Your task to perform on an android device: allow notifications from all sites in the chrome app Image 0: 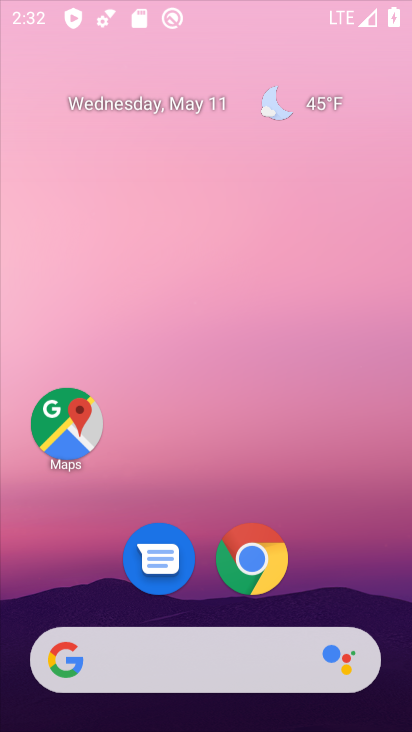
Step 0: drag from (304, 356) to (235, 94)
Your task to perform on an android device: allow notifications from all sites in the chrome app Image 1: 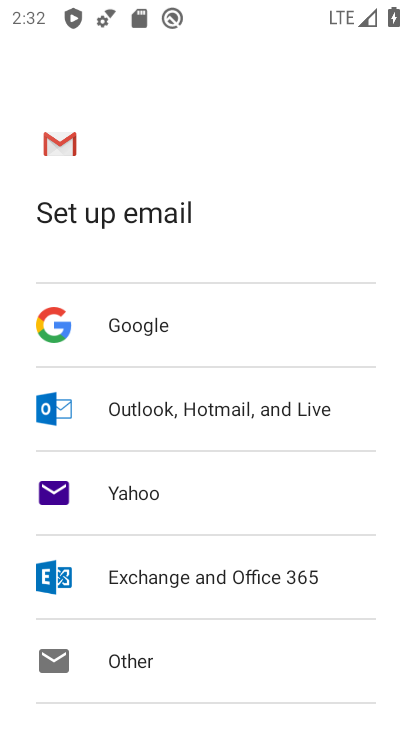
Step 1: press home button
Your task to perform on an android device: allow notifications from all sites in the chrome app Image 2: 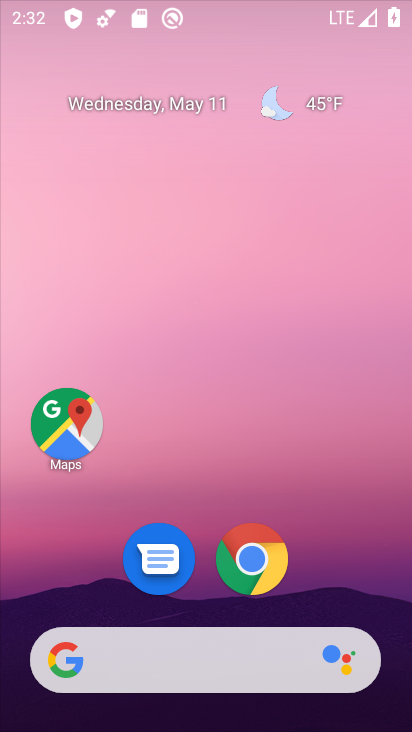
Step 2: drag from (324, 423) to (261, 58)
Your task to perform on an android device: allow notifications from all sites in the chrome app Image 3: 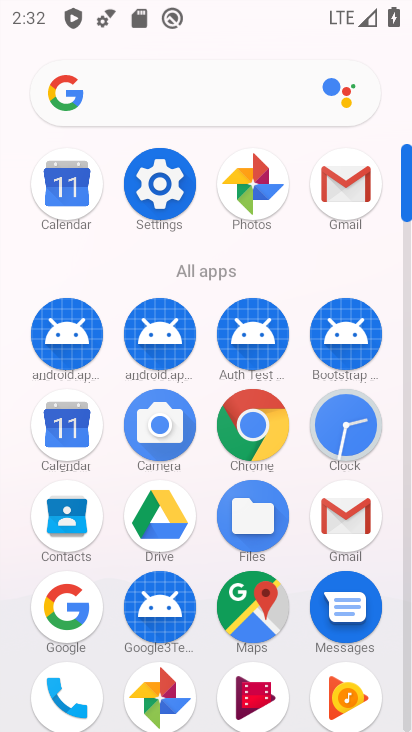
Step 3: click (342, 190)
Your task to perform on an android device: allow notifications from all sites in the chrome app Image 4: 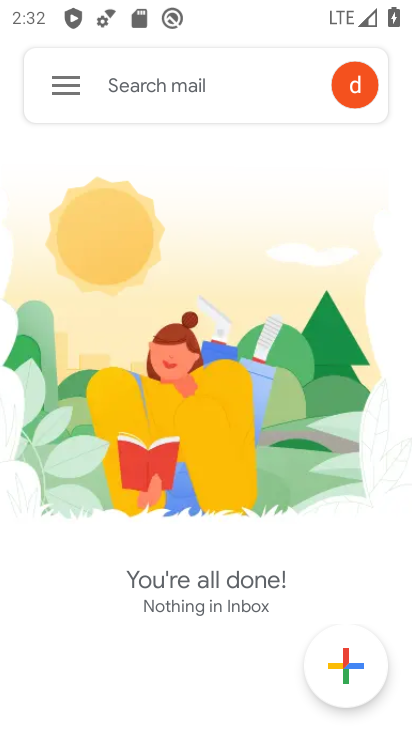
Step 4: click (69, 84)
Your task to perform on an android device: allow notifications from all sites in the chrome app Image 5: 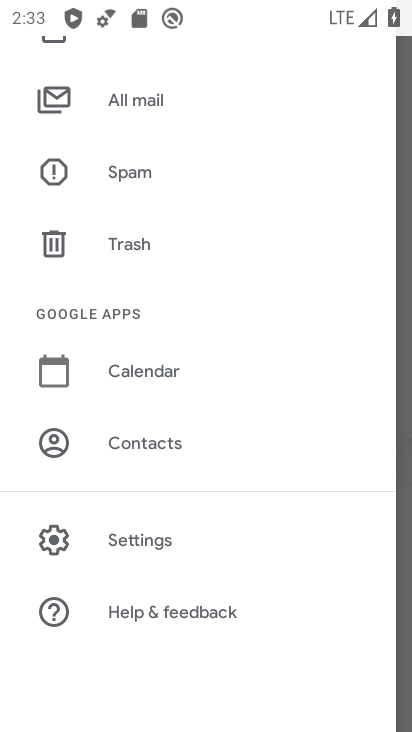
Step 5: press home button
Your task to perform on an android device: allow notifications from all sites in the chrome app Image 6: 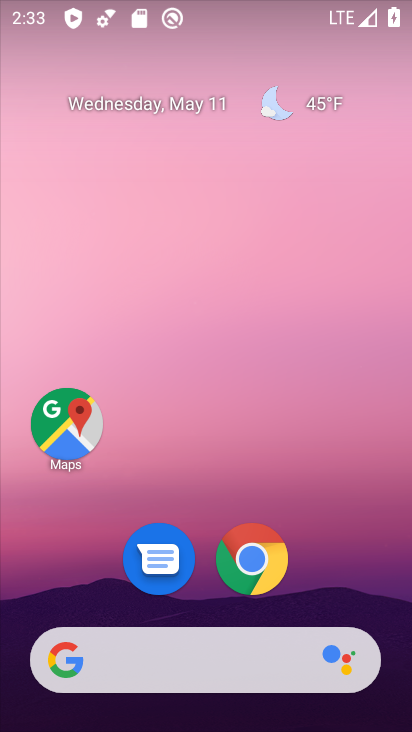
Step 6: click (259, 554)
Your task to perform on an android device: allow notifications from all sites in the chrome app Image 7: 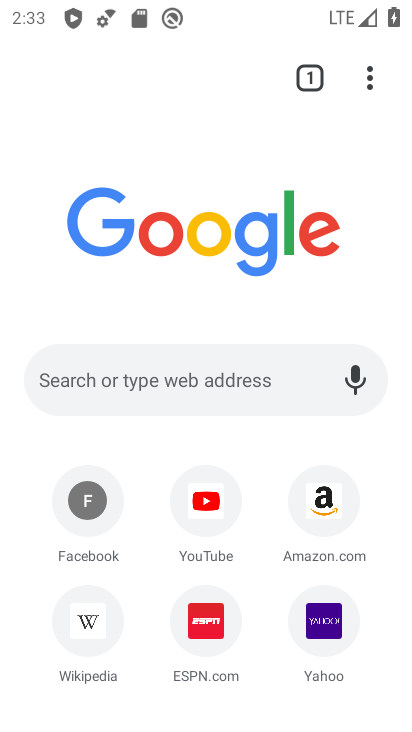
Step 7: click (376, 69)
Your task to perform on an android device: allow notifications from all sites in the chrome app Image 8: 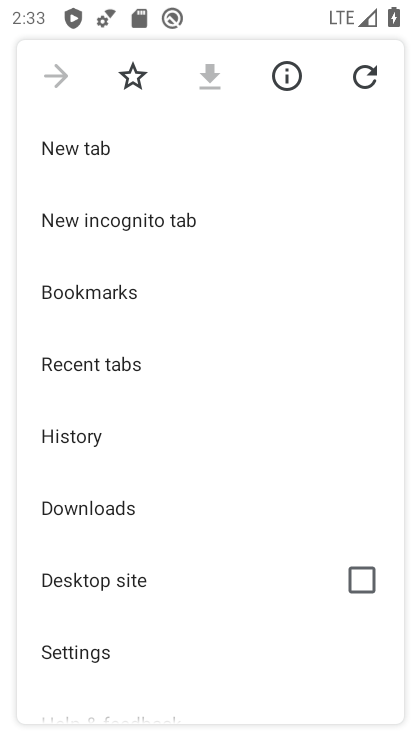
Step 8: drag from (168, 598) to (162, 517)
Your task to perform on an android device: allow notifications from all sites in the chrome app Image 9: 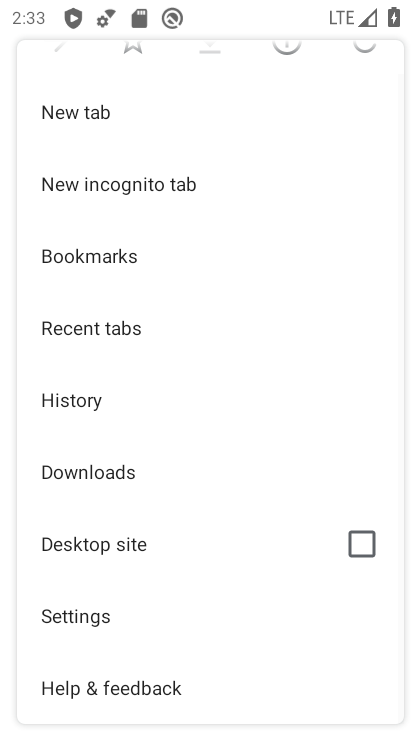
Step 9: click (150, 616)
Your task to perform on an android device: allow notifications from all sites in the chrome app Image 10: 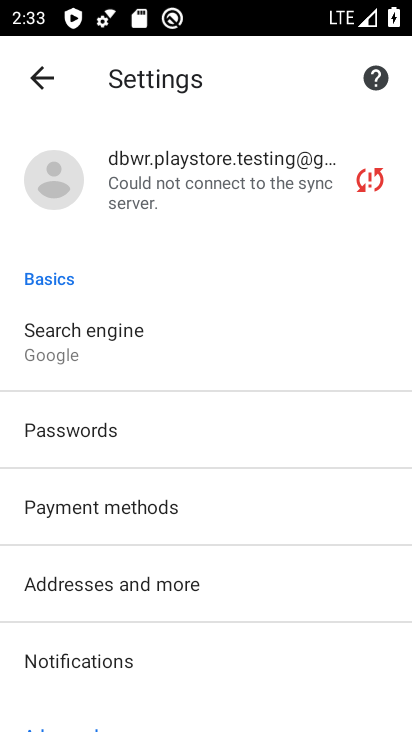
Step 10: drag from (185, 612) to (158, 269)
Your task to perform on an android device: allow notifications from all sites in the chrome app Image 11: 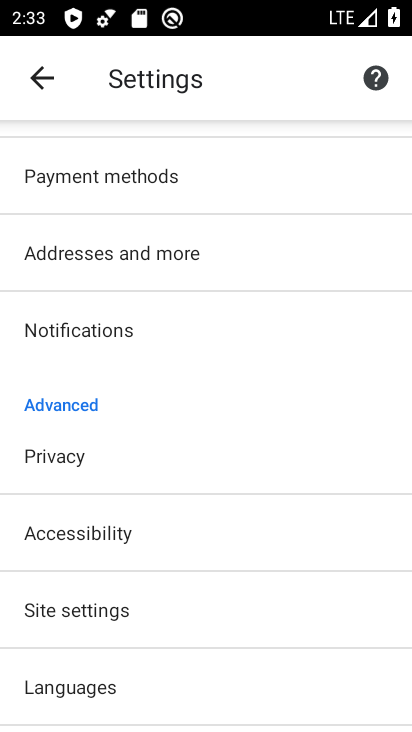
Step 11: click (110, 587)
Your task to perform on an android device: allow notifications from all sites in the chrome app Image 12: 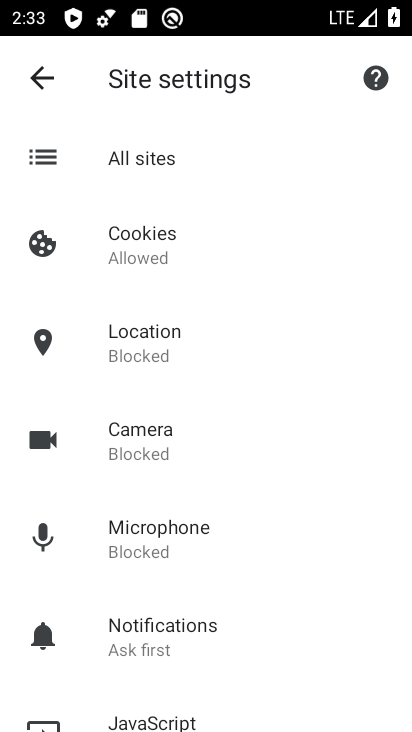
Step 12: click (177, 612)
Your task to perform on an android device: allow notifications from all sites in the chrome app Image 13: 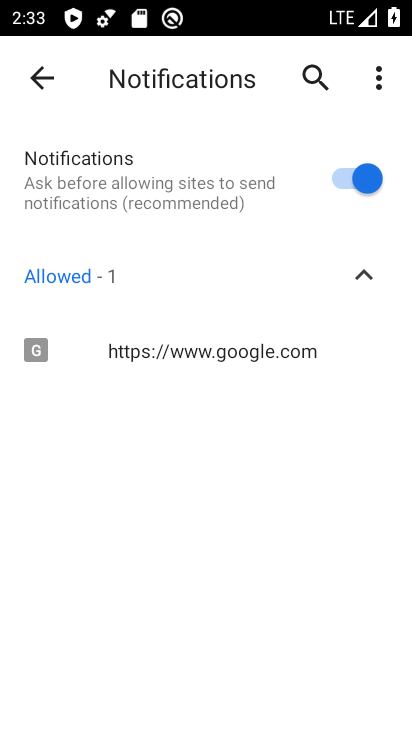
Step 13: task complete